Your task to perform on an android device: Open internet settings Image 0: 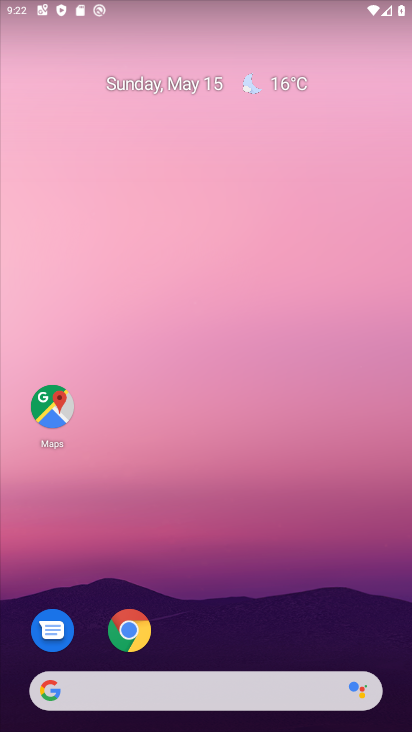
Step 0: drag from (217, 639) to (229, 193)
Your task to perform on an android device: Open internet settings Image 1: 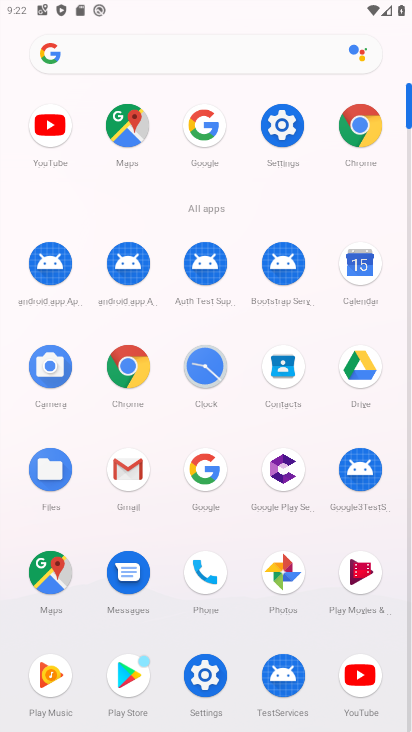
Step 1: click (268, 146)
Your task to perform on an android device: Open internet settings Image 2: 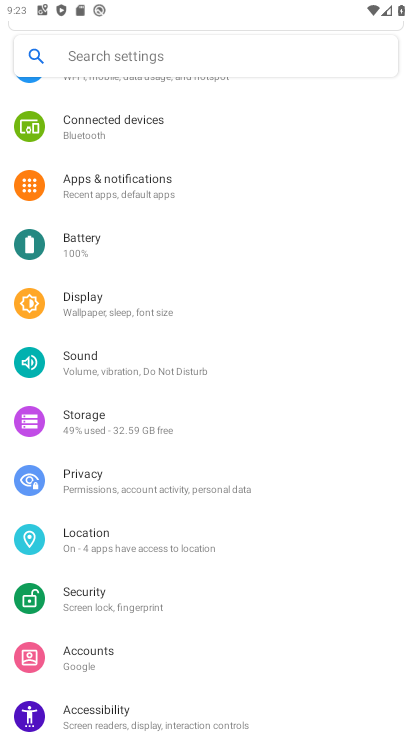
Step 2: drag from (184, 298) to (187, 500)
Your task to perform on an android device: Open internet settings Image 3: 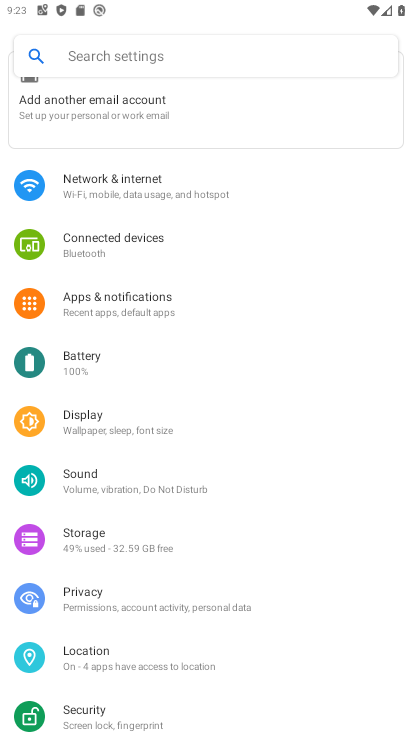
Step 3: click (180, 199)
Your task to perform on an android device: Open internet settings Image 4: 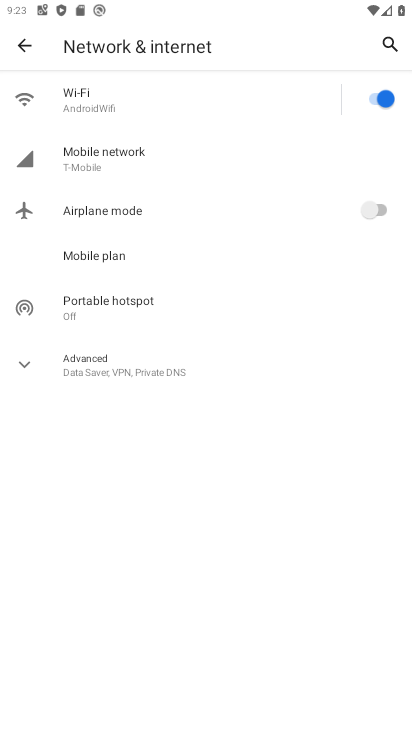
Step 4: click (116, 145)
Your task to perform on an android device: Open internet settings Image 5: 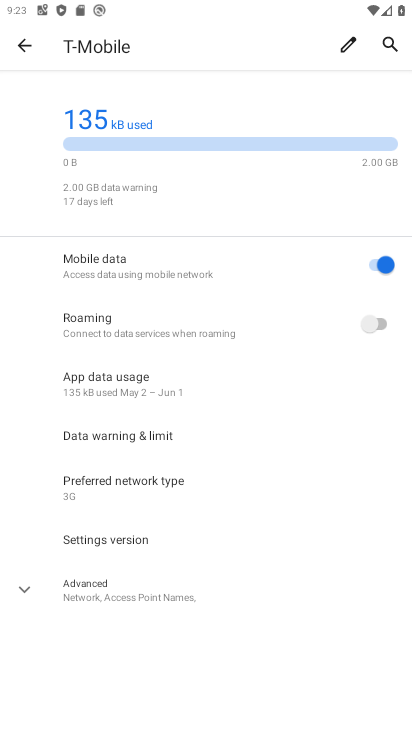
Step 5: task complete